Your task to perform on an android device: Open Reddit.com Image 0: 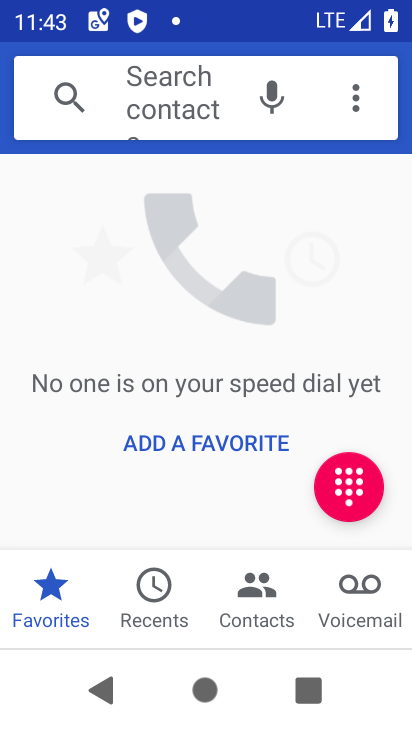
Step 0: press home button
Your task to perform on an android device: Open Reddit.com Image 1: 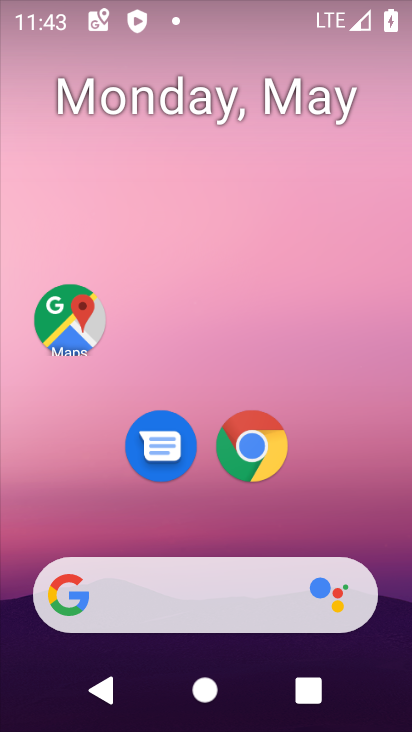
Step 1: click (213, 433)
Your task to perform on an android device: Open Reddit.com Image 2: 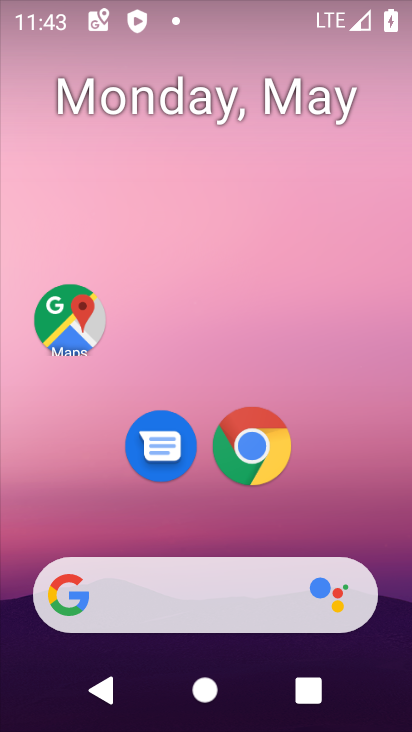
Step 2: click (255, 458)
Your task to perform on an android device: Open Reddit.com Image 3: 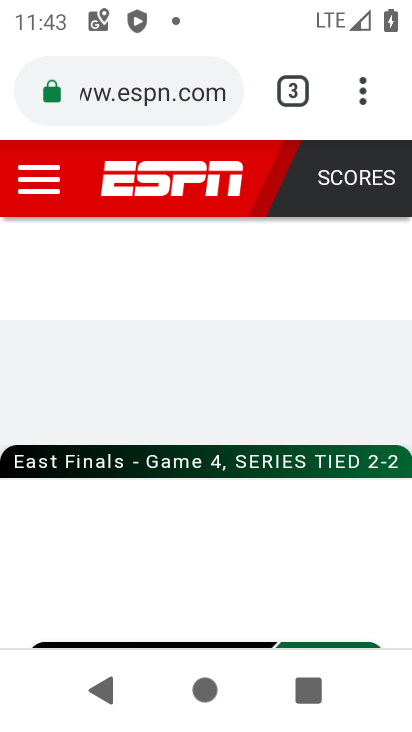
Step 3: click (144, 77)
Your task to perform on an android device: Open Reddit.com Image 4: 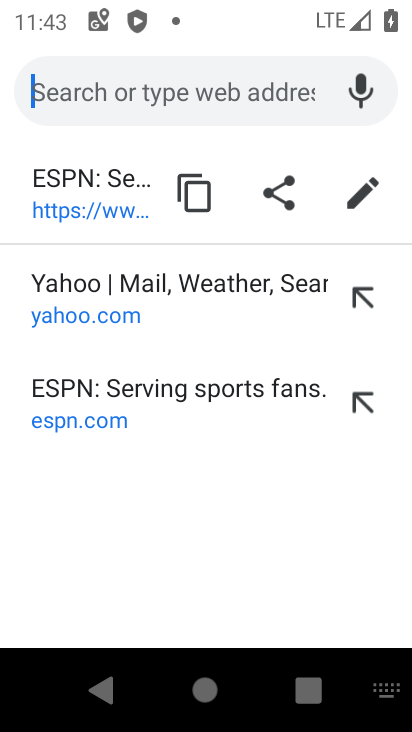
Step 4: type "reddit"
Your task to perform on an android device: Open Reddit.com Image 5: 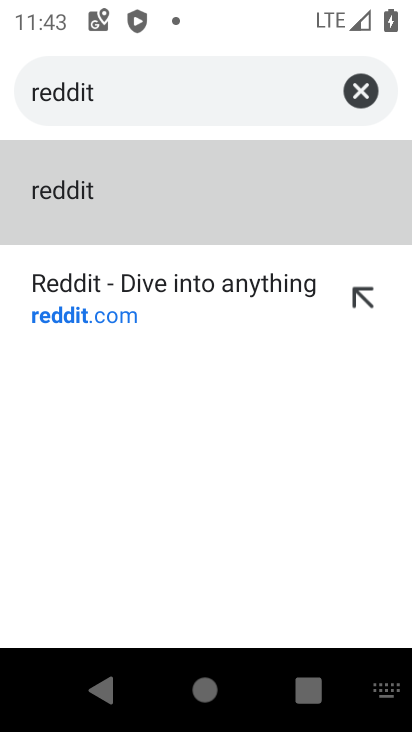
Step 5: click (189, 307)
Your task to perform on an android device: Open Reddit.com Image 6: 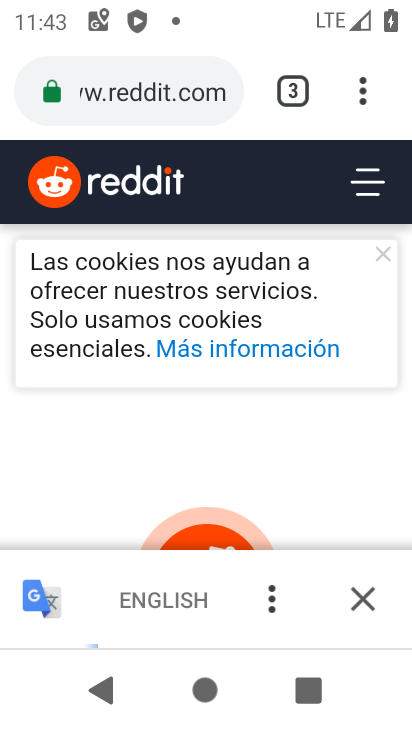
Step 6: task complete